Your task to perform on an android device: Go to ESPN.com Image 0: 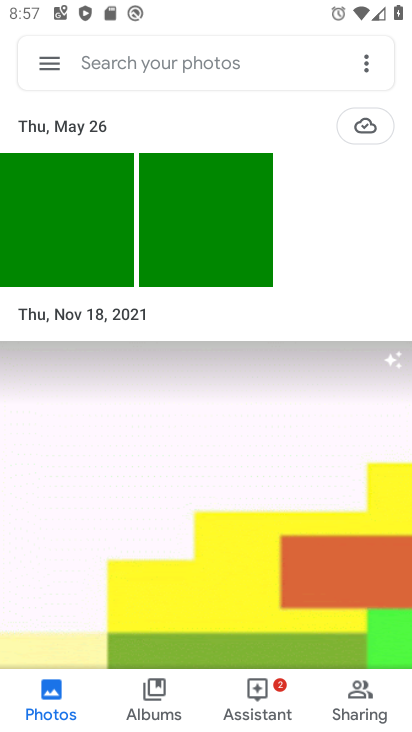
Step 0: press home button
Your task to perform on an android device: Go to ESPN.com Image 1: 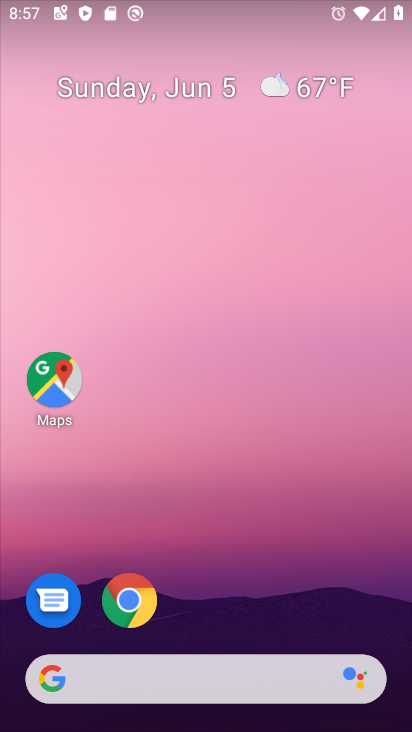
Step 1: drag from (396, 646) to (224, 28)
Your task to perform on an android device: Go to ESPN.com Image 2: 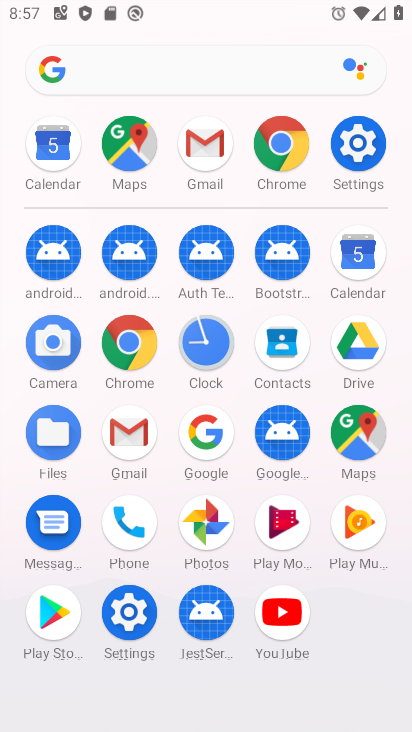
Step 2: click (208, 426)
Your task to perform on an android device: Go to ESPN.com Image 3: 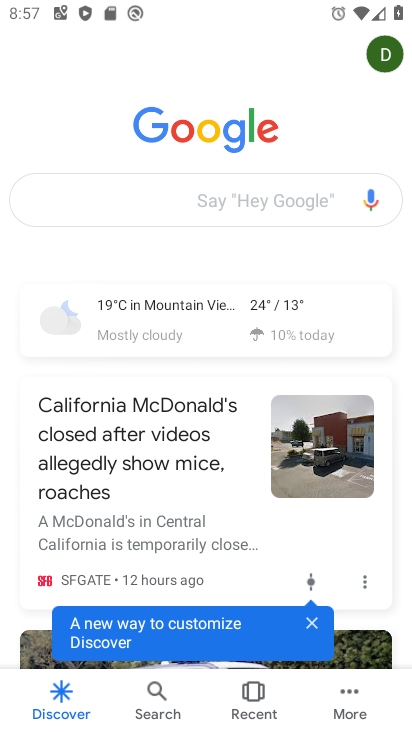
Step 3: click (147, 205)
Your task to perform on an android device: Go to ESPN.com Image 4: 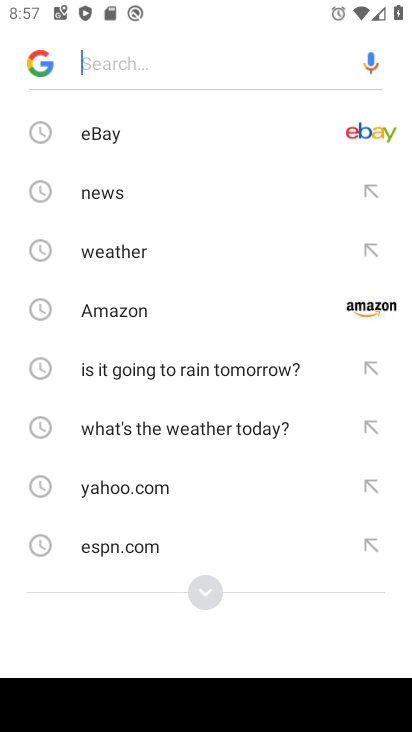
Step 4: click (181, 545)
Your task to perform on an android device: Go to ESPN.com Image 5: 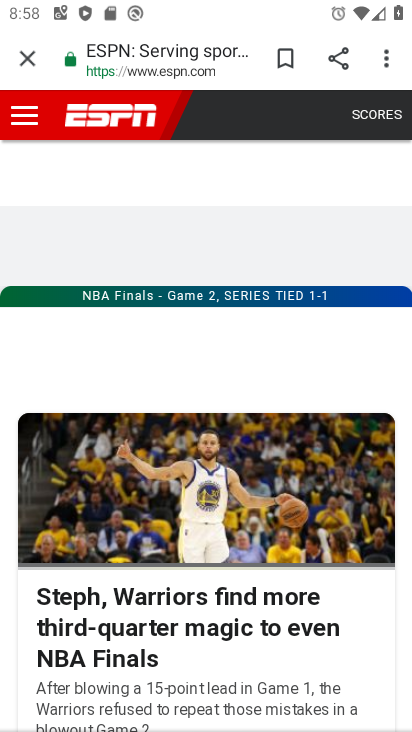
Step 5: task complete